Your task to perform on an android device: make emails show in primary in the gmail app Image 0: 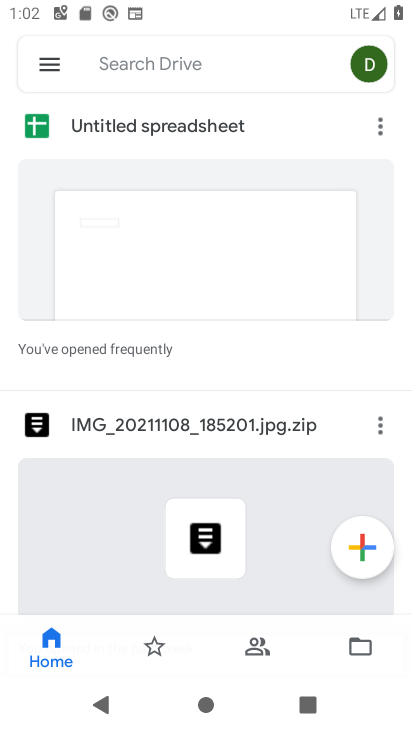
Step 0: press home button
Your task to perform on an android device: make emails show in primary in the gmail app Image 1: 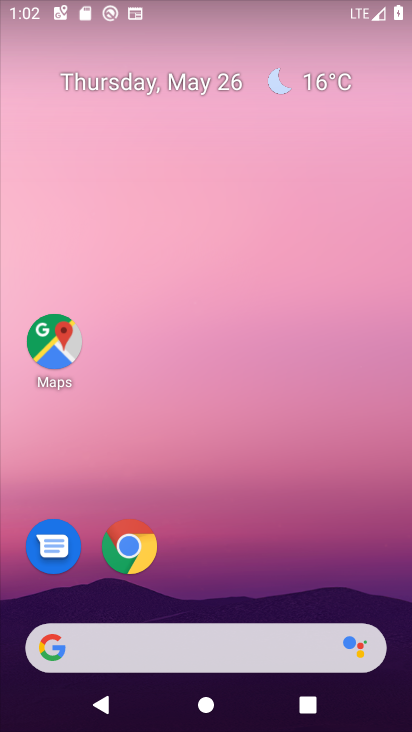
Step 1: drag from (169, 547) to (169, 209)
Your task to perform on an android device: make emails show in primary in the gmail app Image 2: 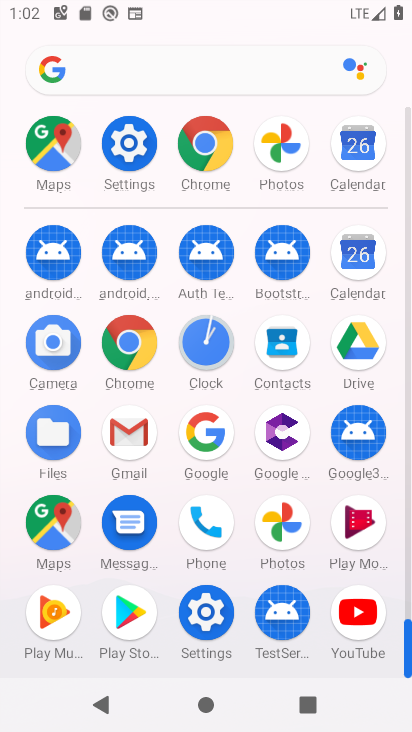
Step 2: click (126, 436)
Your task to perform on an android device: make emails show in primary in the gmail app Image 3: 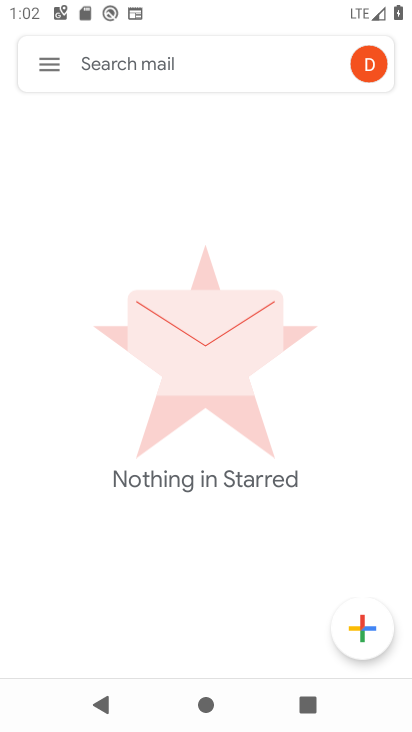
Step 3: click (49, 64)
Your task to perform on an android device: make emails show in primary in the gmail app Image 4: 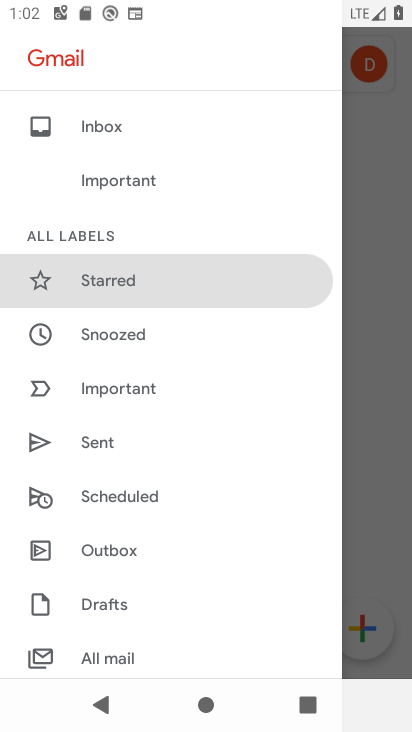
Step 4: drag from (139, 608) to (197, 295)
Your task to perform on an android device: make emails show in primary in the gmail app Image 5: 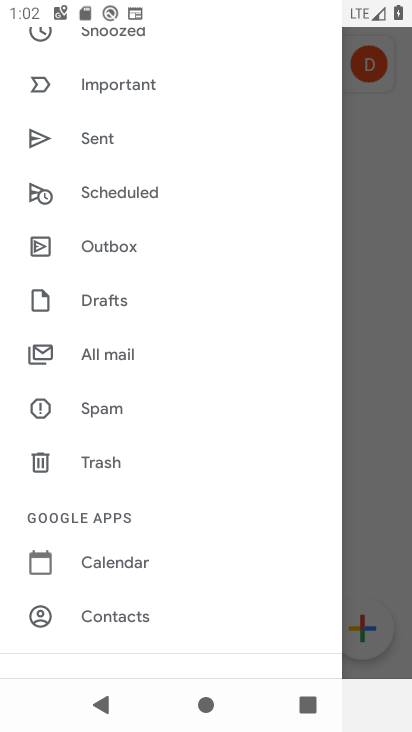
Step 5: drag from (175, 565) to (256, 312)
Your task to perform on an android device: make emails show in primary in the gmail app Image 6: 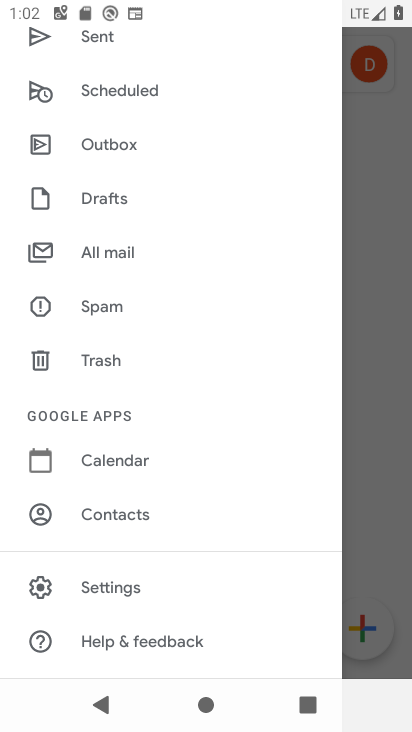
Step 6: click (119, 583)
Your task to perform on an android device: make emails show in primary in the gmail app Image 7: 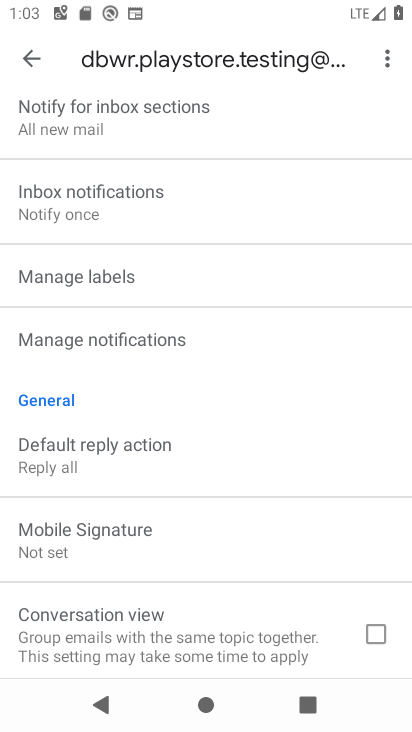
Step 7: drag from (127, 177) to (149, 498)
Your task to perform on an android device: make emails show in primary in the gmail app Image 8: 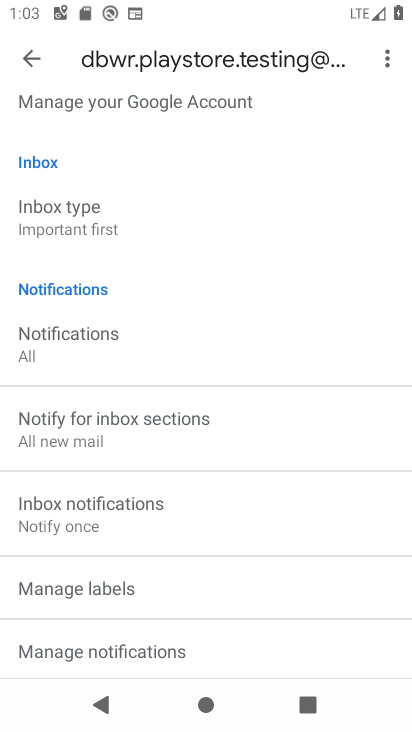
Step 8: click (67, 214)
Your task to perform on an android device: make emails show in primary in the gmail app Image 9: 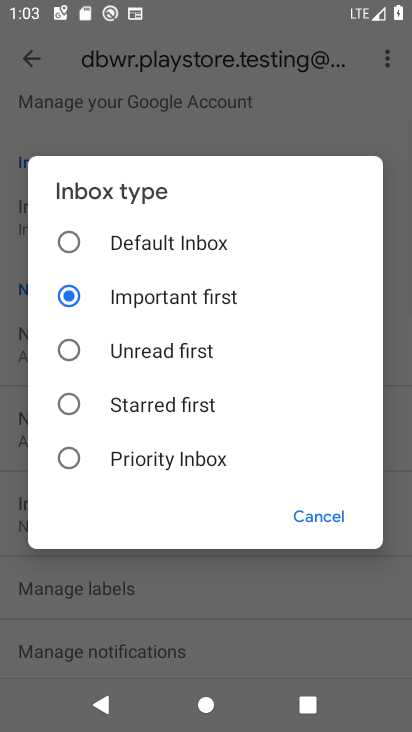
Step 9: click (97, 239)
Your task to perform on an android device: make emails show in primary in the gmail app Image 10: 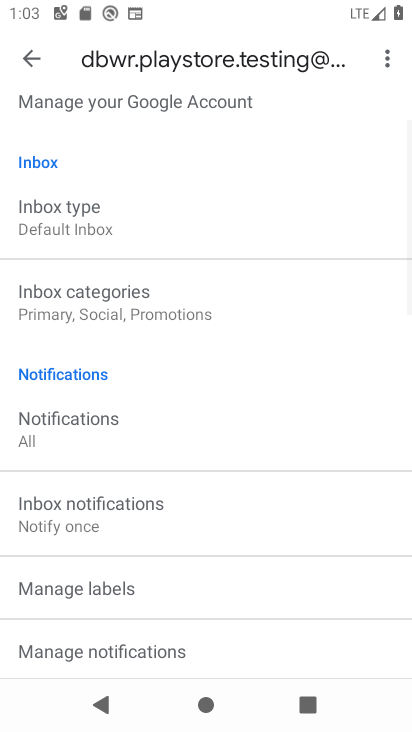
Step 10: click (34, 65)
Your task to perform on an android device: make emails show in primary in the gmail app Image 11: 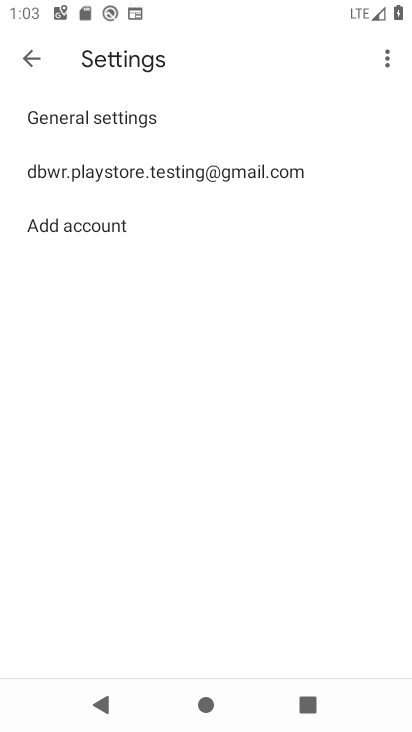
Step 11: click (23, 52)
Your task to perform on an android device: make emails show in primary in the gmail app Image 12: 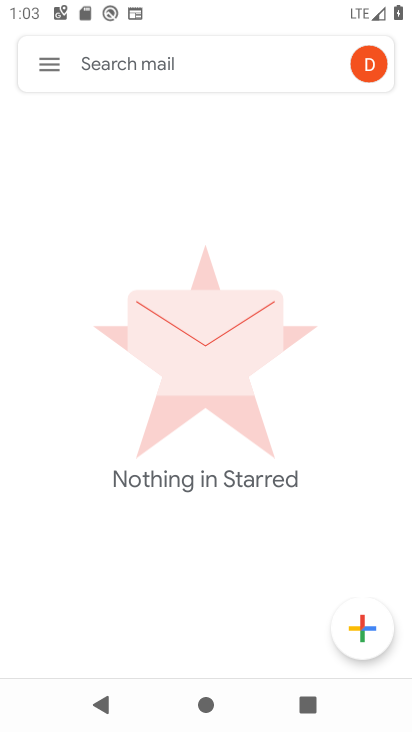
Step 12: click (35, 70)
Your task to perform on an android device: make emails show in primary in the gmail app Image 13: 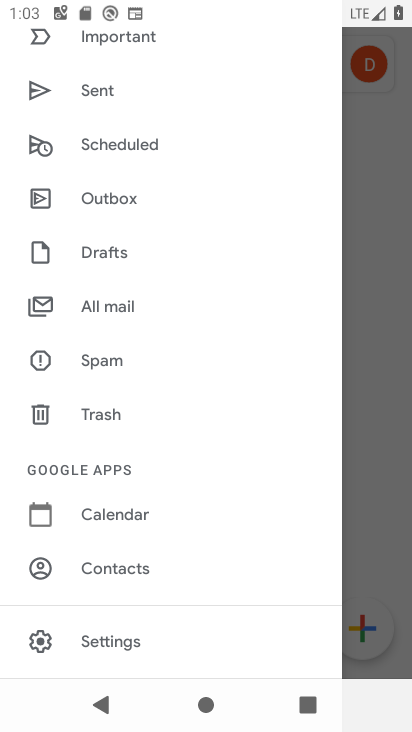
Step 13: drag from (97, 170) to (84, 534)
Your task to perform on an android device: make emails show in primary in the gmail app Image 14: 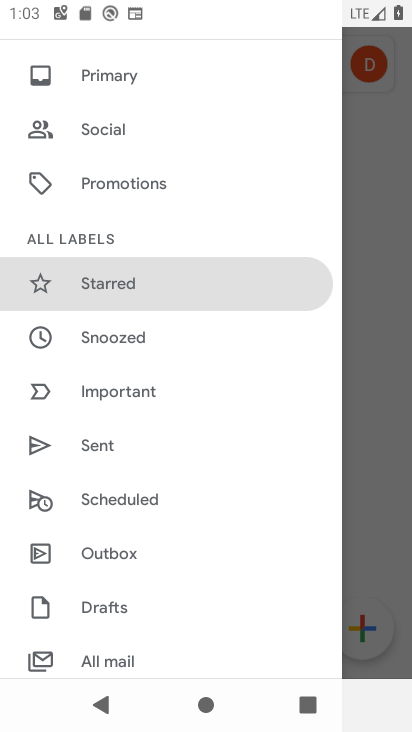
Step 14: click (100, 84)
Your task to perform on an android device: make emails show in primary in the gmail app Image 15: 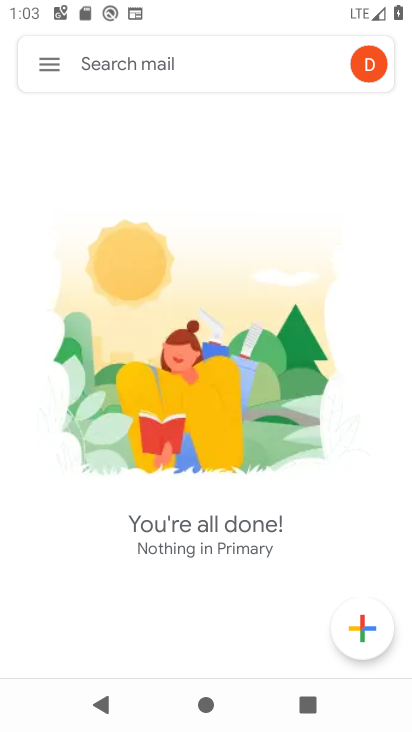
Step 15: task complete